Your task to perform on an android device: Open the calendar and show me this week's events Image 0: 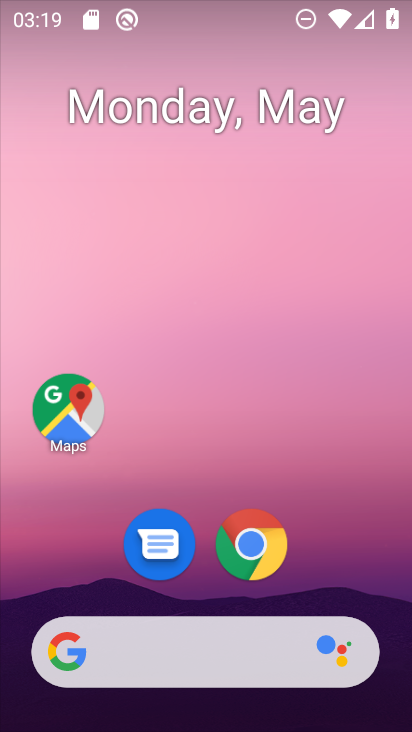
Step 0: drag from (360, 571) to (358, 93)
Your task to perform on an android device: Open the calendar and show me this week's events Image 1: 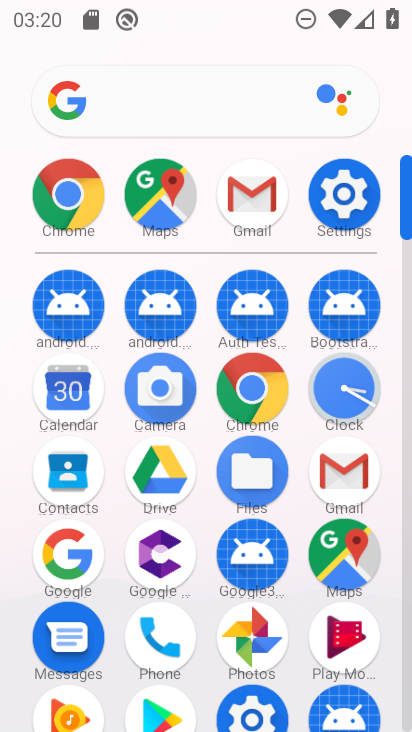
Step 1: click (86, 402)
Your task to perform on an android device: Open the calendar and show me this week's events Image 2: 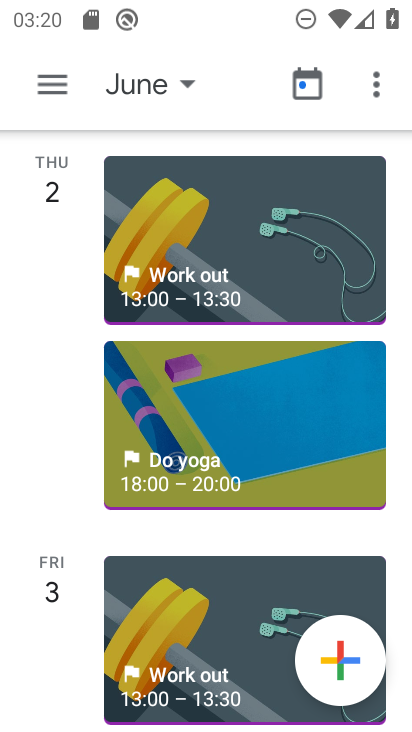
Step 2: task complete